Your task to perform on an android device: What's on my calendar today? Image 0: 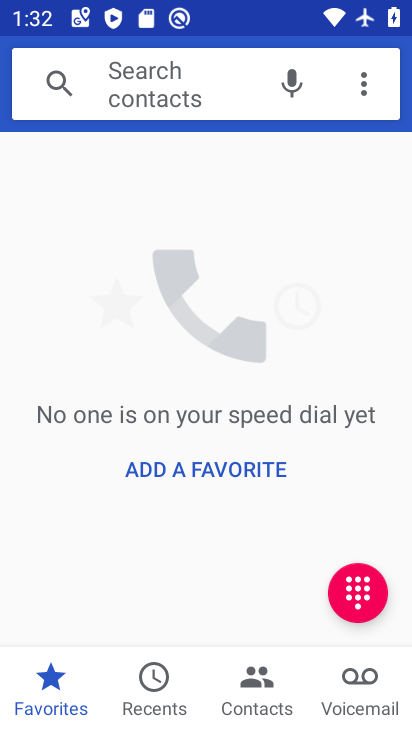
Step 0: press home button
Your task to perform on an android device: What's on my calendar today? Image 1: 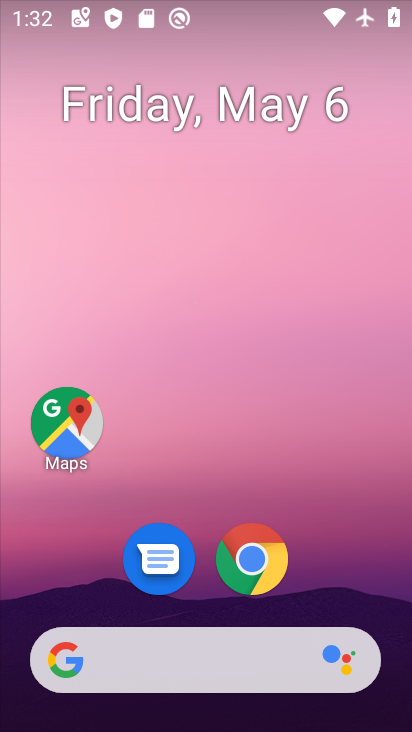
Step 1: drag from (201, 660) to (376, 61)
Your task to perform on an android device: What's on my calendar today? Image 2: 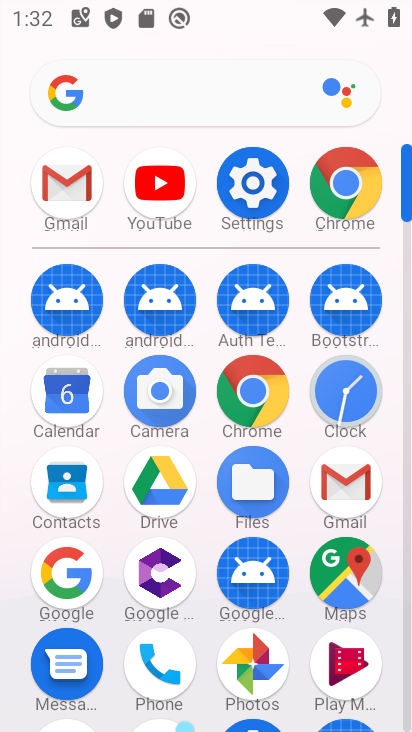
Step 2: click (75, 397)
Your task to perform on an android device: What's on my calendar today? Image 3: 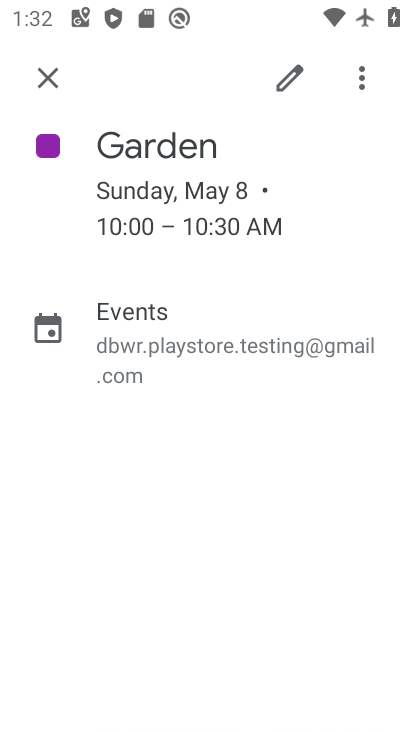
Step 3: click (49, 85)
Your task to perform on an android device: What's on my calendar today? Image 4: 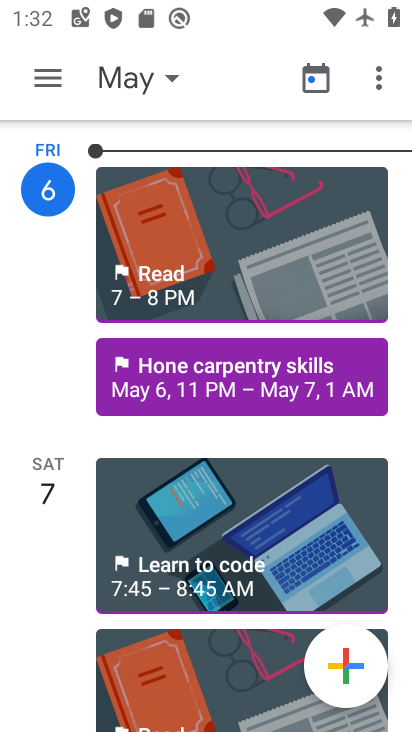
Step 4: click (115, 78)
Your task to perform on an android device: What's on my calendar today? Image 5: 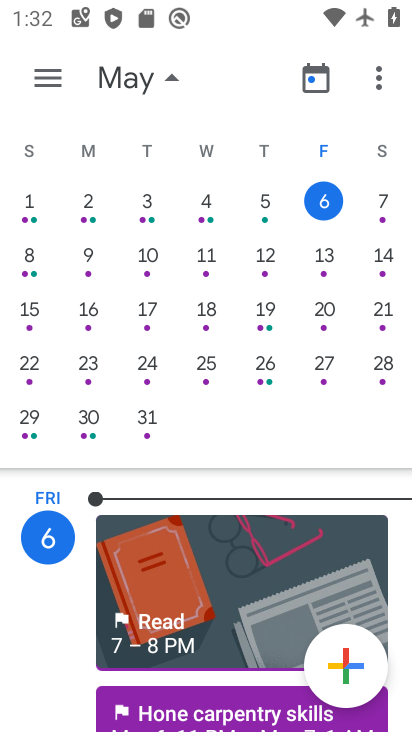
Step 5: click (44, 80)
Your task to perform on an android device: What's on my calendar today? Image 6: 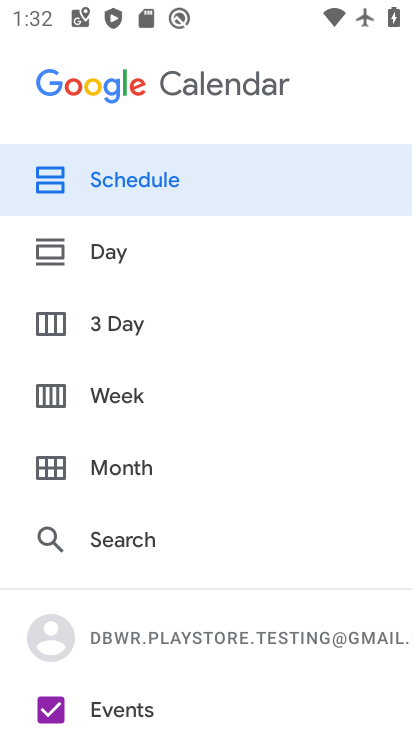
Step 6: click (107, 184)
Your task to perform on an android device: What's on my calendar today? Image 7: 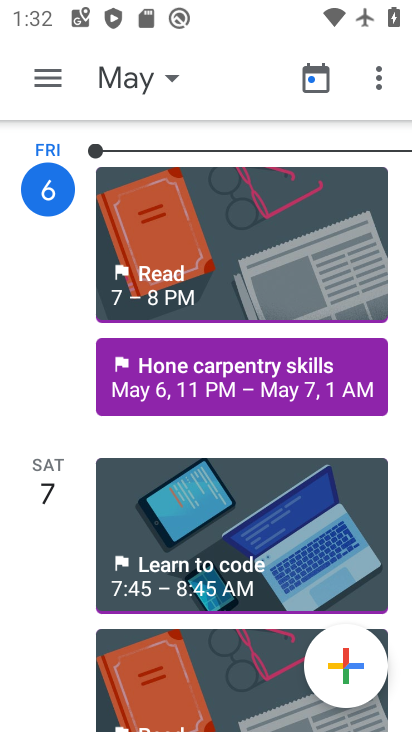
Step 7: click (176, 385)
Your task to perform on an android device: What's on my calendar today? Image 8: 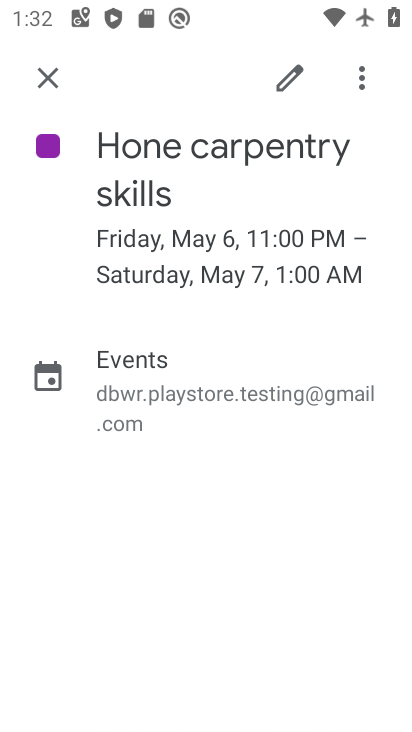
Step 8: task complete